Your task to perform on an android device: Do I have any events today? Image 0: 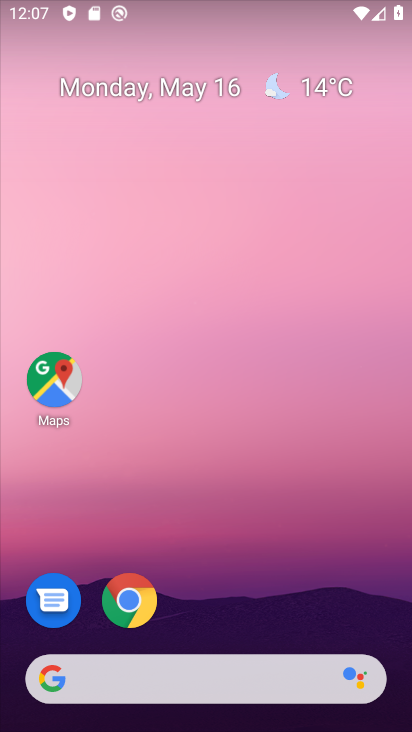
Step 0: drag from (211, 638) to (233, 1)
Your task to perform on an android device: Do I have any events today? Image 1: 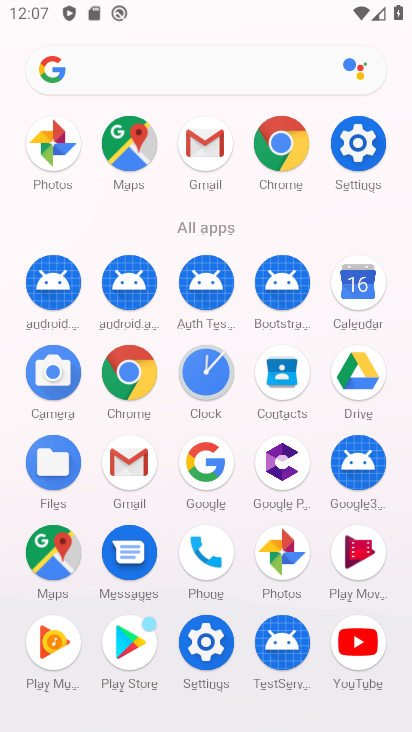
Step 1: click (353, 277)
Your task to perform on an android device: Do I have any events today? Image 2: 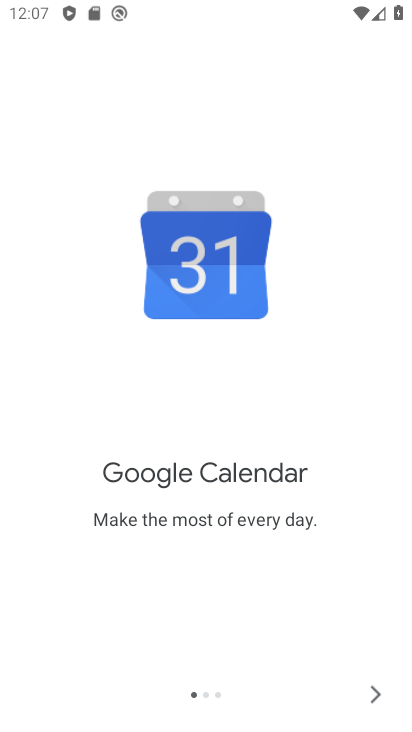
Step 2: click (364, 689)
Your task to perform on an android device: Do I have any events today? Image 3: 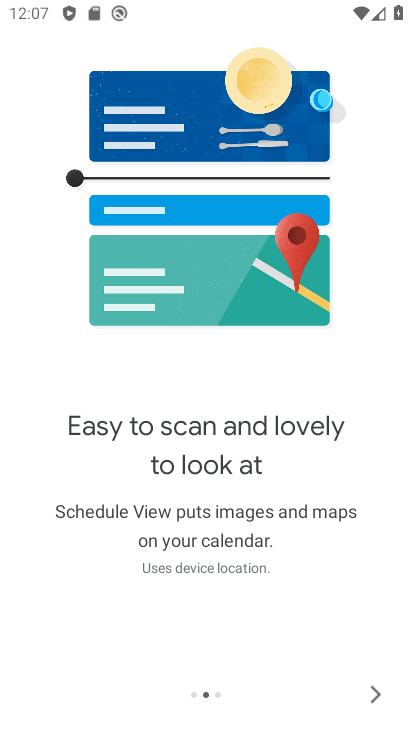
Step 3: click (364, 689)
Your task to perform on an android device: Do I have any events today? Image 4: 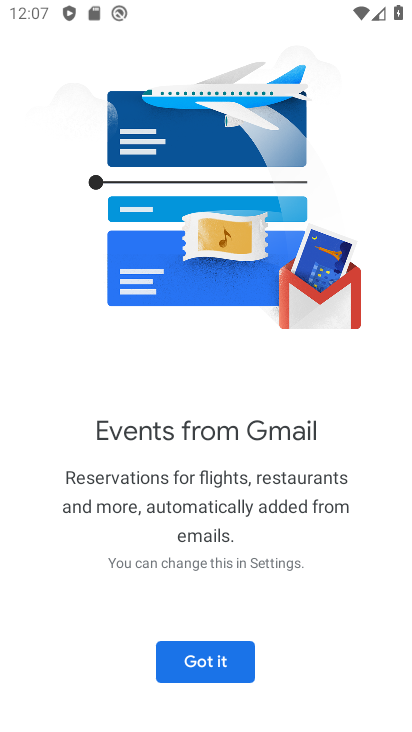
Step 4: click (210, 660)
Your task to perform on an android device: Do I have any events today? Image 5: 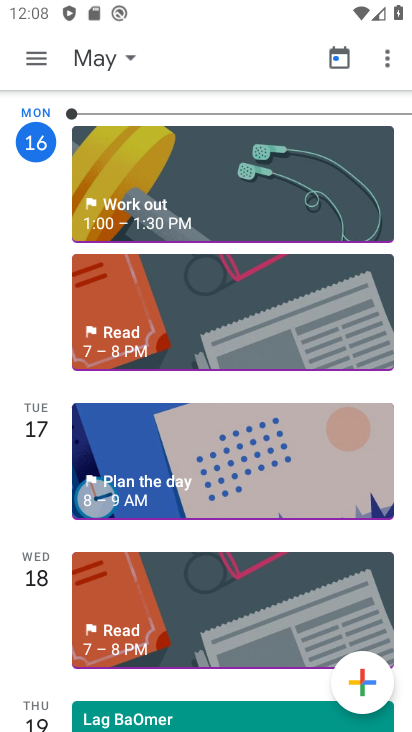
Step 5: drag from (45, 667) to (68, 115)
Your task to perform on an android device: Do I have any events today? Image 6: 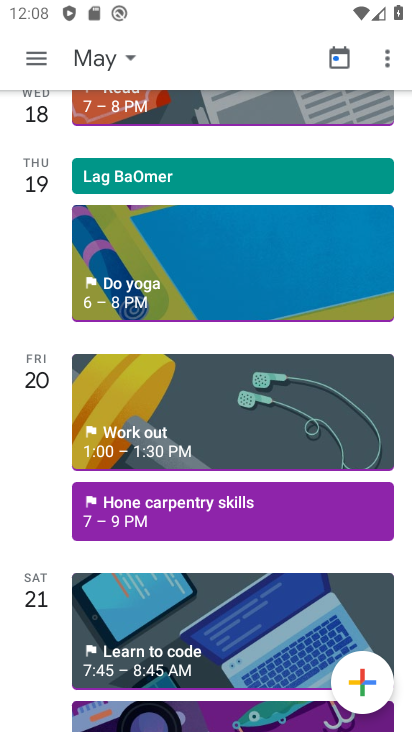
Step 6: drag from (50, 147) to (22, 654)
Your task to perform on an android device: Do I have any events today? Image 7: 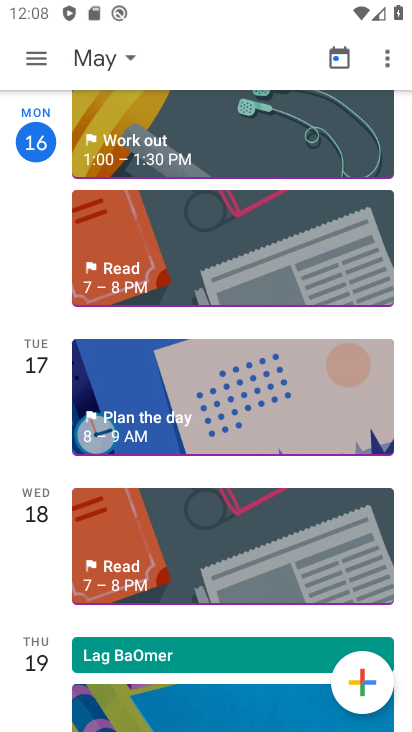
Step 7: click (48, 176)
Your task to perform on an android device: Do I have any events today? Image 8: 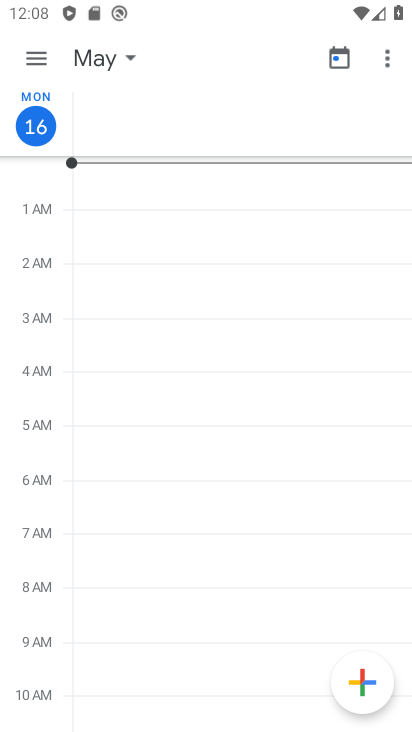
Step 8: task complete